Your task to perform on an android device: make emails show in primary in the gmail app Image 0: 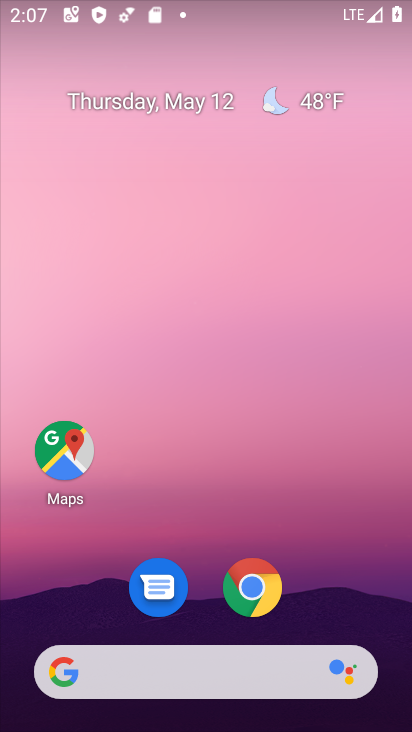
Step 0: drag from (256, 655) to (267, 164)
Your task to perform on an android device: make emails show in primary in the gmail app Image 1: 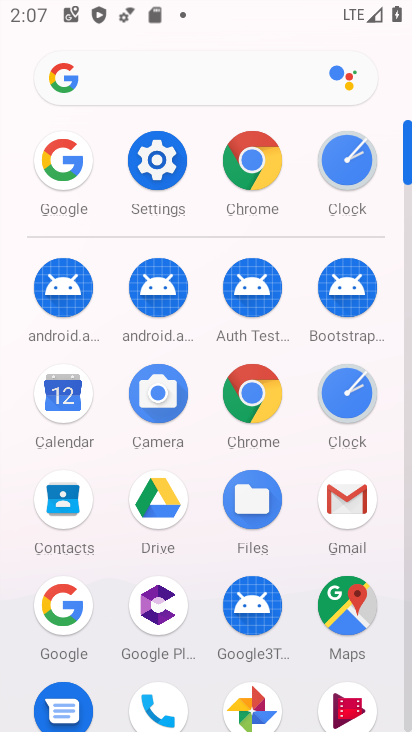
Step 1: click (357, 519)
Your task to perform on an android device: make emails show in primary in the gmail app Image 2: 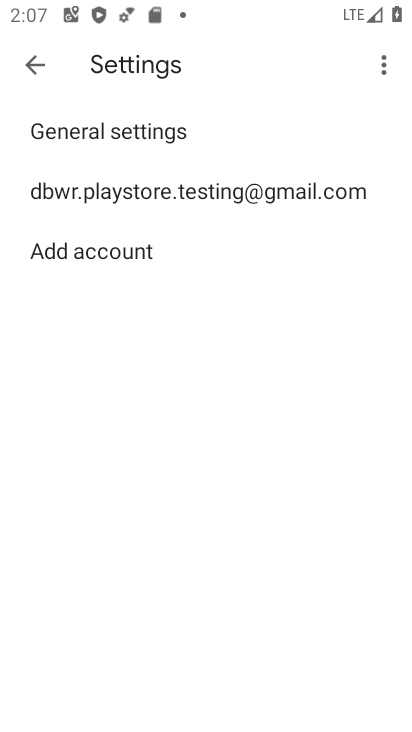
Step 2: click (29, 66)
Your task to perform on an android device: make emails show in primary in the gmail app Image 3: 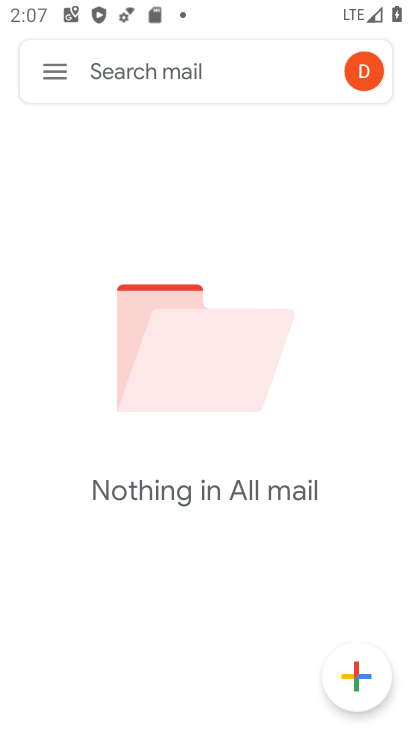
Step 3: click (62, 85)
Your task to perform on an android device: make emails show in primary in the gmail app Image 4: 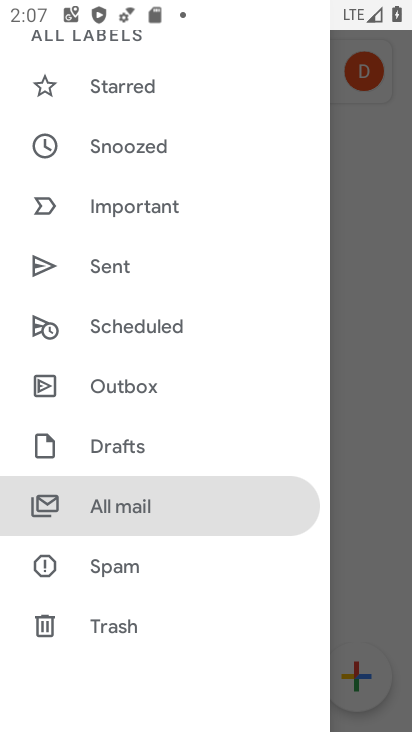
Step 4: task complete